Your task to perform on an android device: Open maps Image 0: 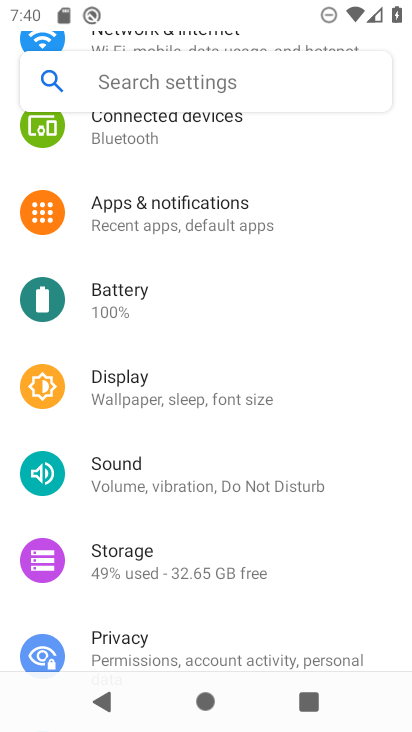
Step 0: press home button
Your task to perform on an android device: Open maps Image 1: 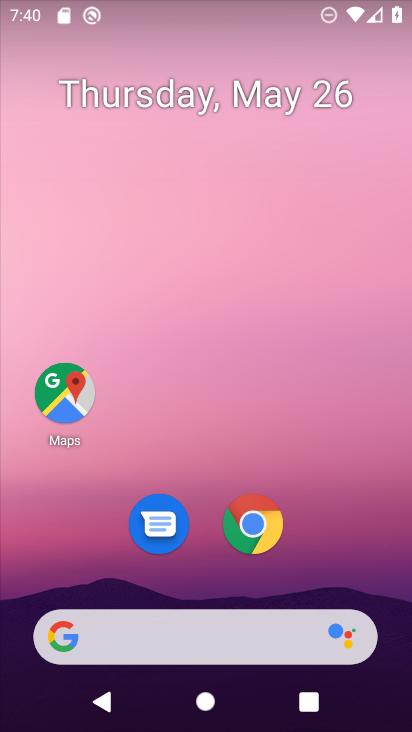
Step 1: click (55, 400)
Your task to perform on an android device: Open maps Image 2: 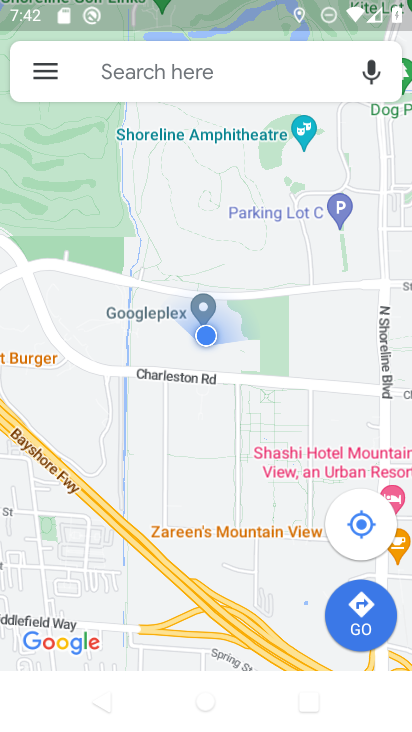
Step 2: task complete